Your task to perform on an android device: Go to Amazon Image 0: 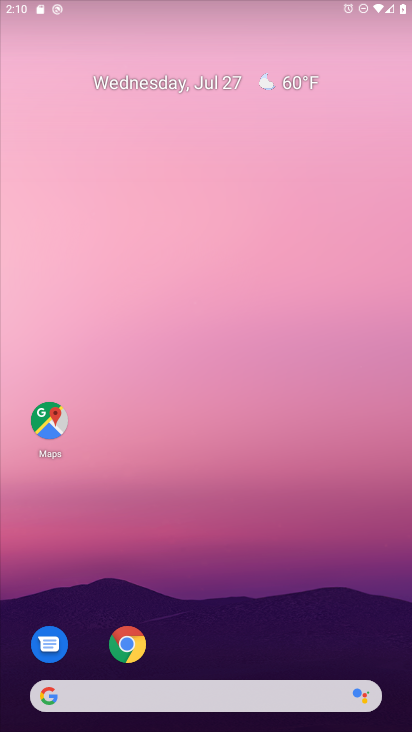
Step 0: press home button
Your task to perform on an android device: Go to Amazon Image 1: 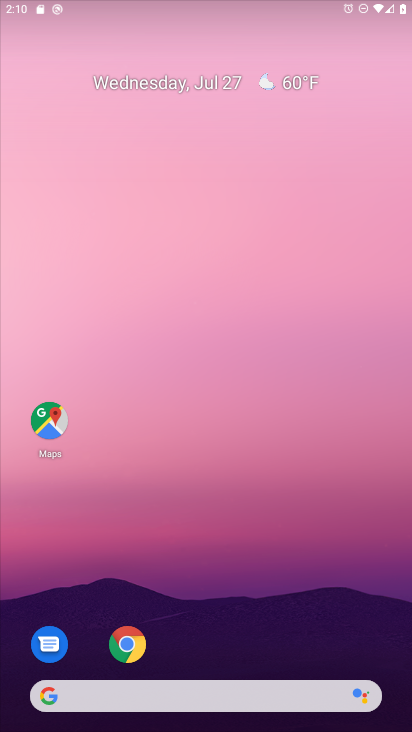
Step 1: click (260, 136)
Your task to perform on an android device: Go to Amazon Image 2: 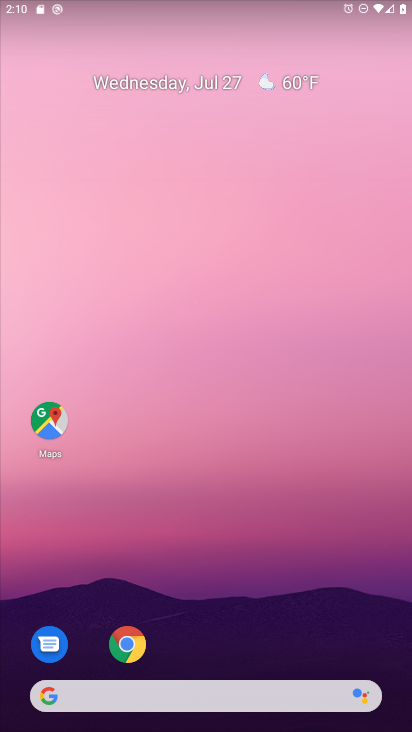
Step 2: drag from (157, 645) to (201, 120)
Your task to perform on an android device: Go to Amazon Image 3: 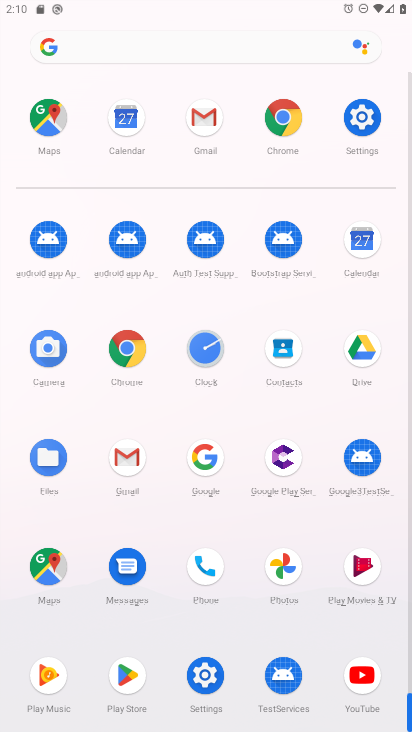
Step 3: click (124, 41)
Your task to perform on an android device: Go to Amazon Image 4: 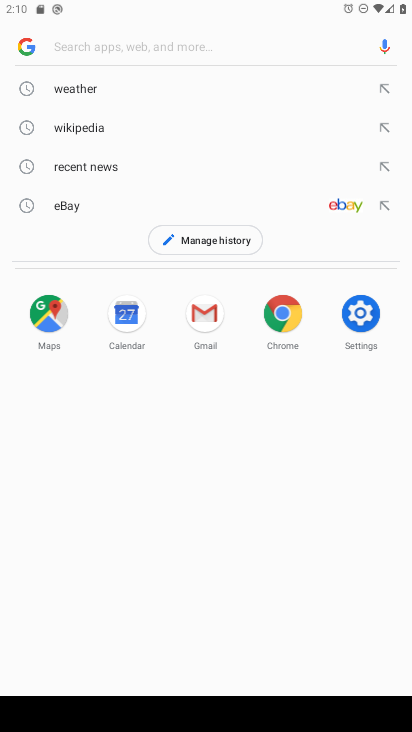
Step 4: type "Amazon"
Your task to perform on an android device: Go to Amazon Image 5: 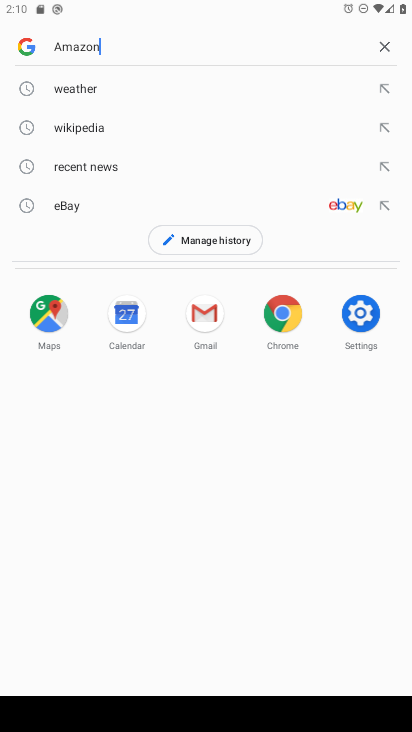
Step 5: type ""
Your task to perform on an android device: Go to Amazon Image 6: 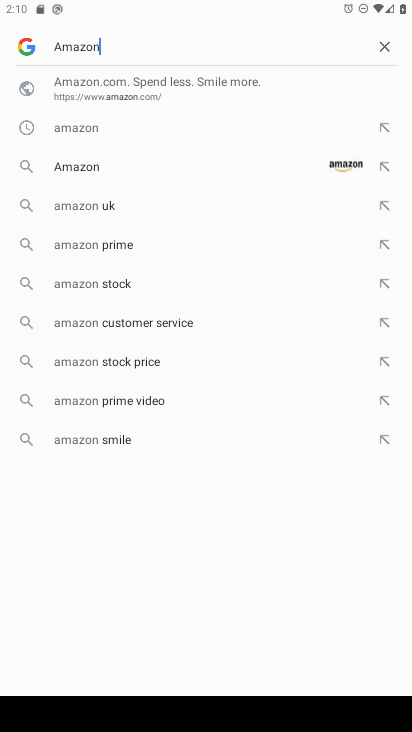
Step 6: click (50, 161)
Your task to perform on an android device: Go to Amazon Image 7: 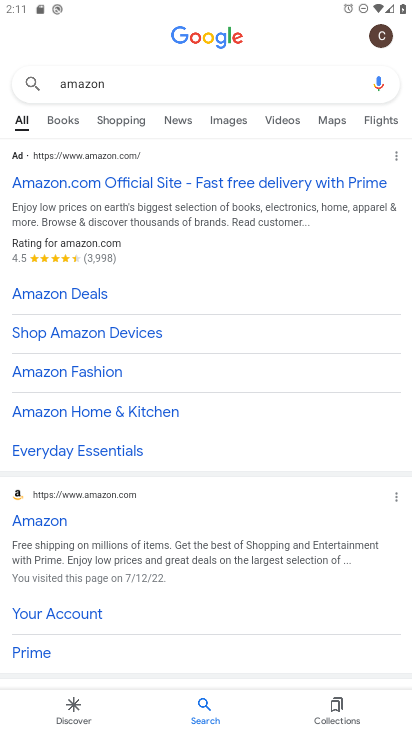
Step 7: drag from (264, 621) to (291, 279)
Your task to perform on an android device: Go to Amazon Image 8: 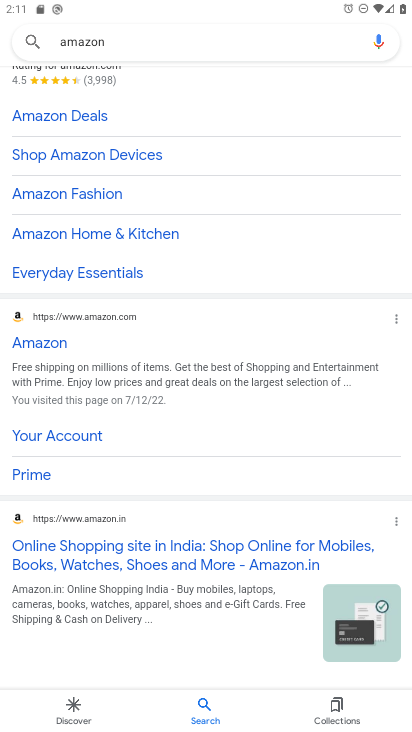
Step 8: drag from (287, 223) to (339, 720)
Your task to perform on an android device: Go to Amazon Image 9: 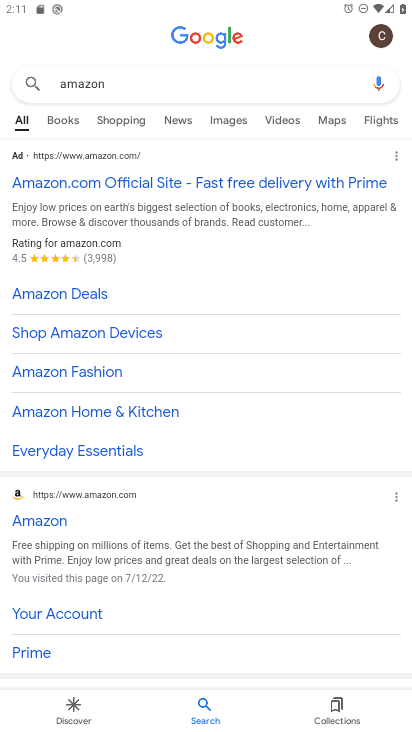
Step 9: click (56, 191)
Your task to perform on an android device: Go to Amazon Image 10: 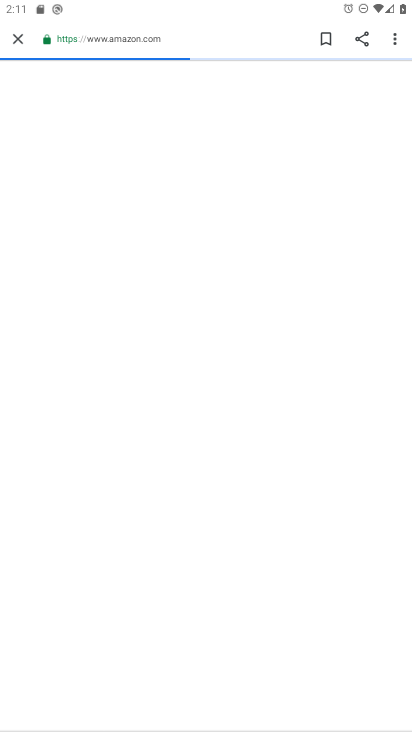
Step 10: task complete